Your task to perform on an android device: turn off notifications in google photos Image 0: 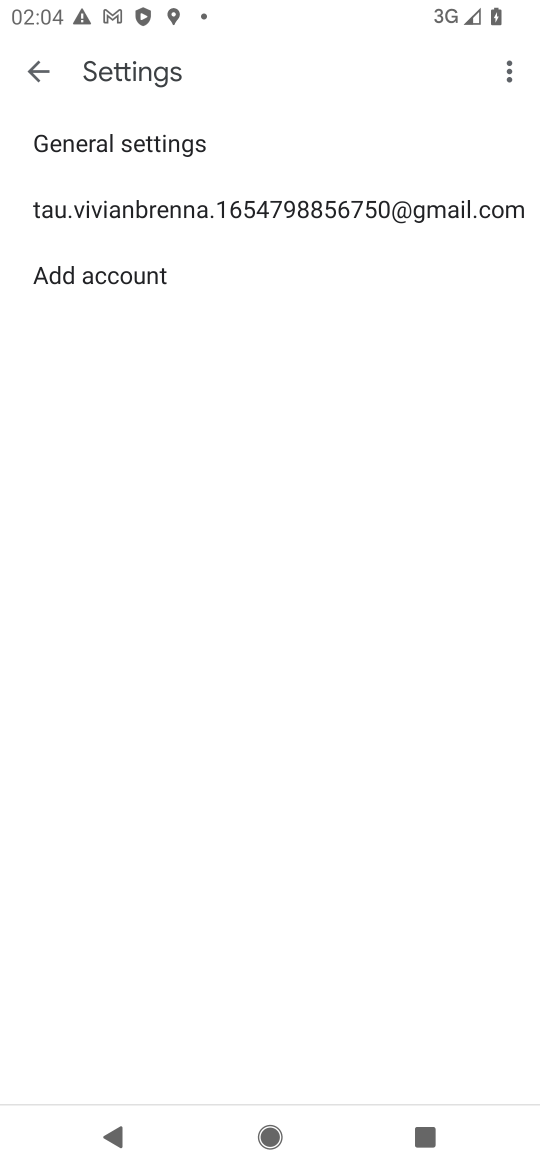
Step 0: press home button
Your task to perform on an android device: turn off notifications in google photos Image 1: 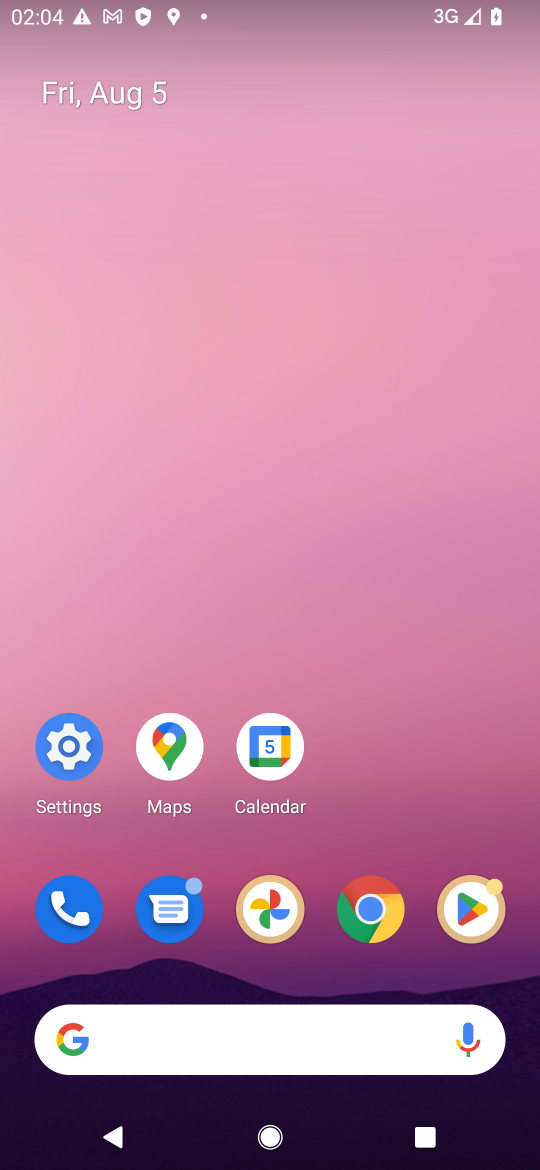
Step 1: click (263, 908)
Your task to perform on an android device: turn off notifications in google photos Image 2: 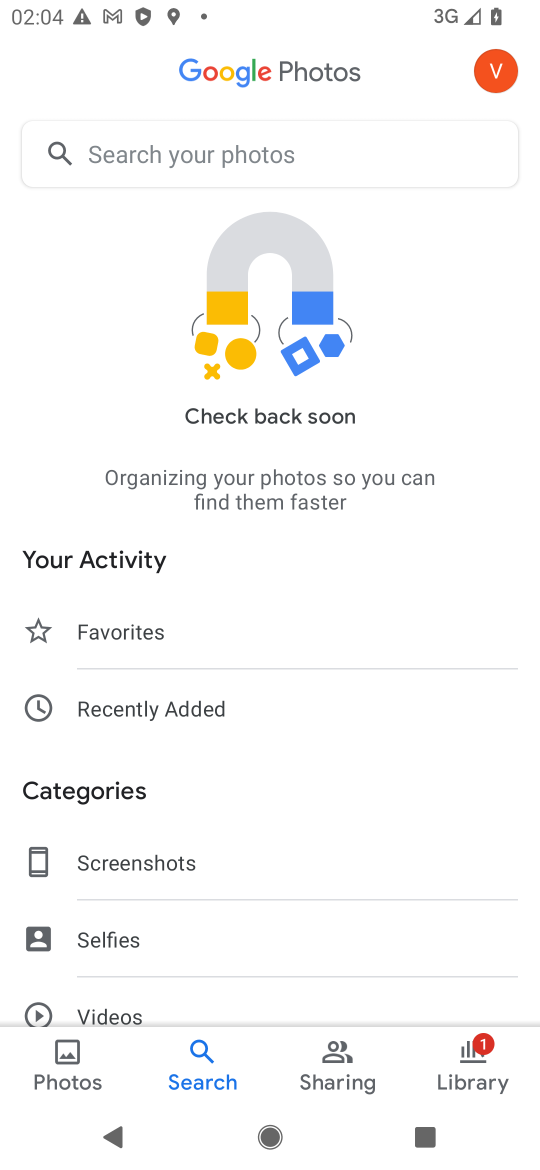
Step 2: drag from (246, 930) to (246, 564)
Your task to perform on an android device: turn off notifications in google photos Image 3: 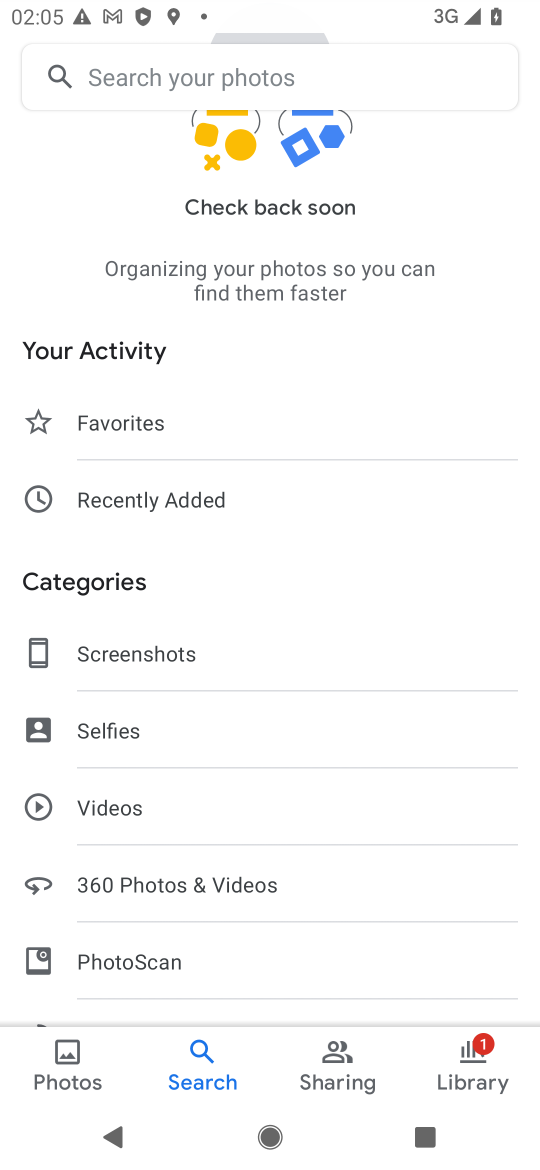
Step 3: drag from (335, 781) to (318, 338)
Your task to perform on an android device: turn off notifications in google photos Image 4: 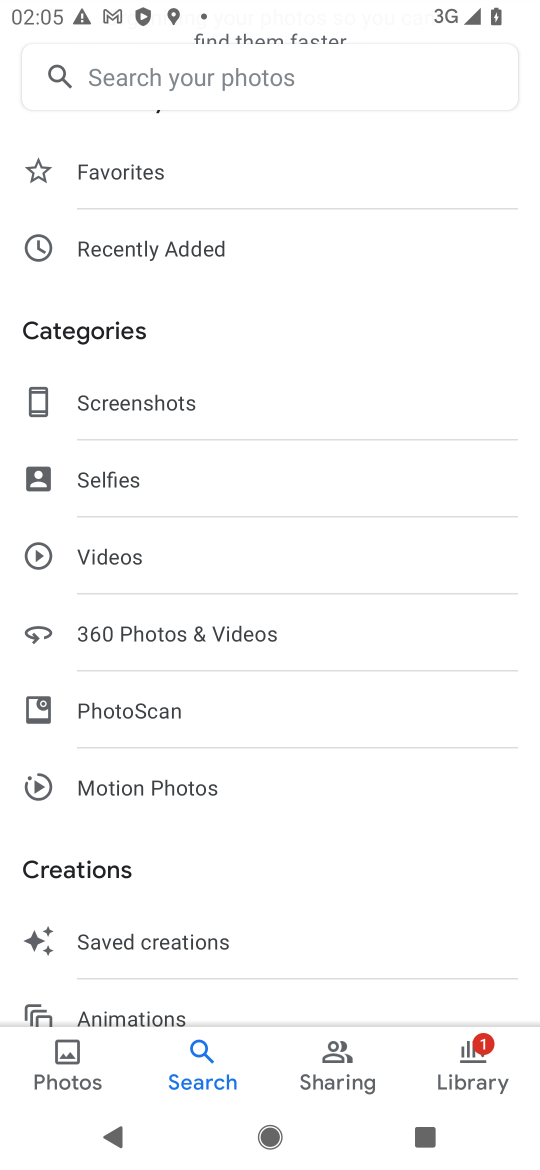
Step 4: click (478, 1051)
Your task to perform on an android device: turn off notifications in google photos Image 5: 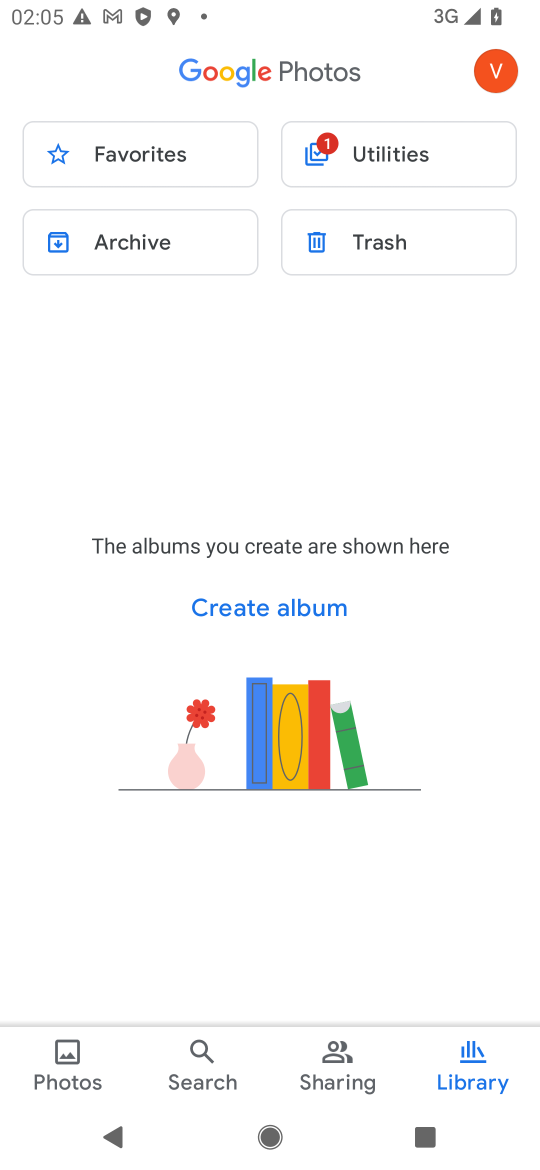
Step 5: click (491, 76)
Your task to perform on an android device: turn off notifications in google photos Image 6: 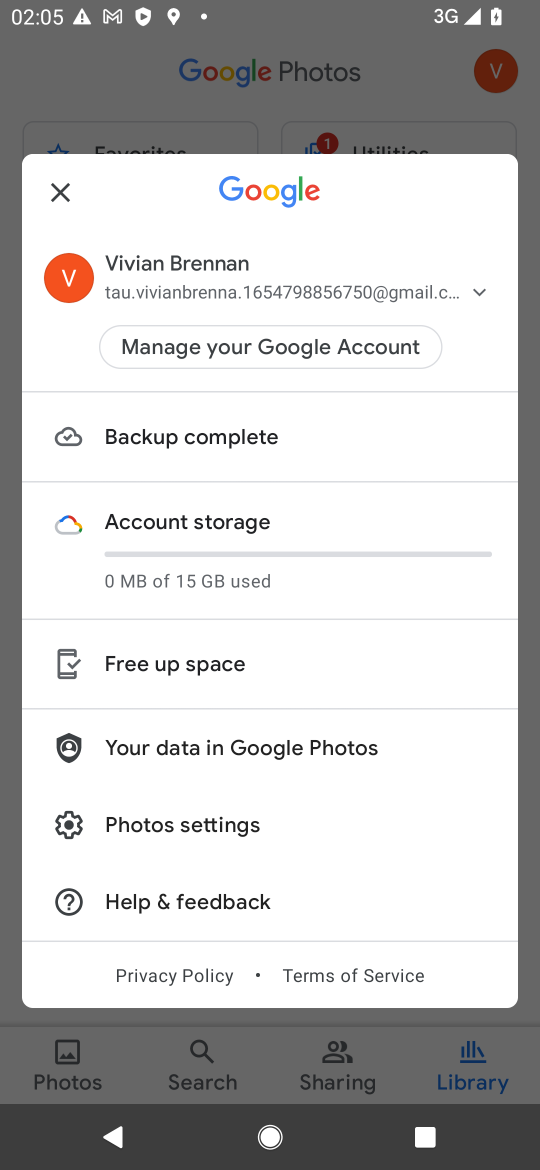
Step 6: click (201, 817)
Your task to perform on an android device: turn off notifications in google photos Image 7: 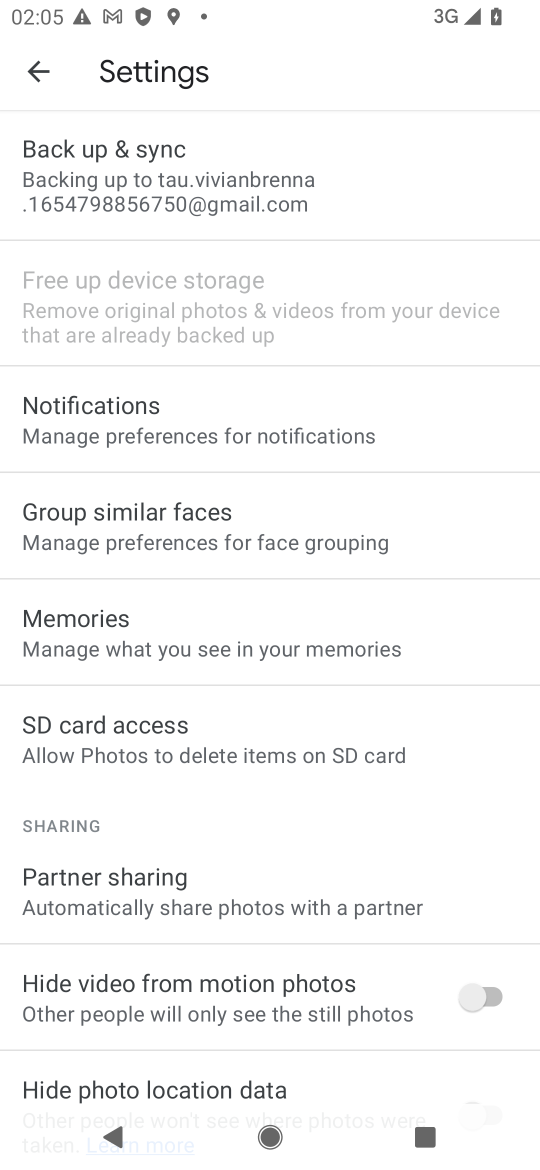
Step 7: click (95, 387)
Your task to perform on an android device: turn off notifications in google photos Image 8: 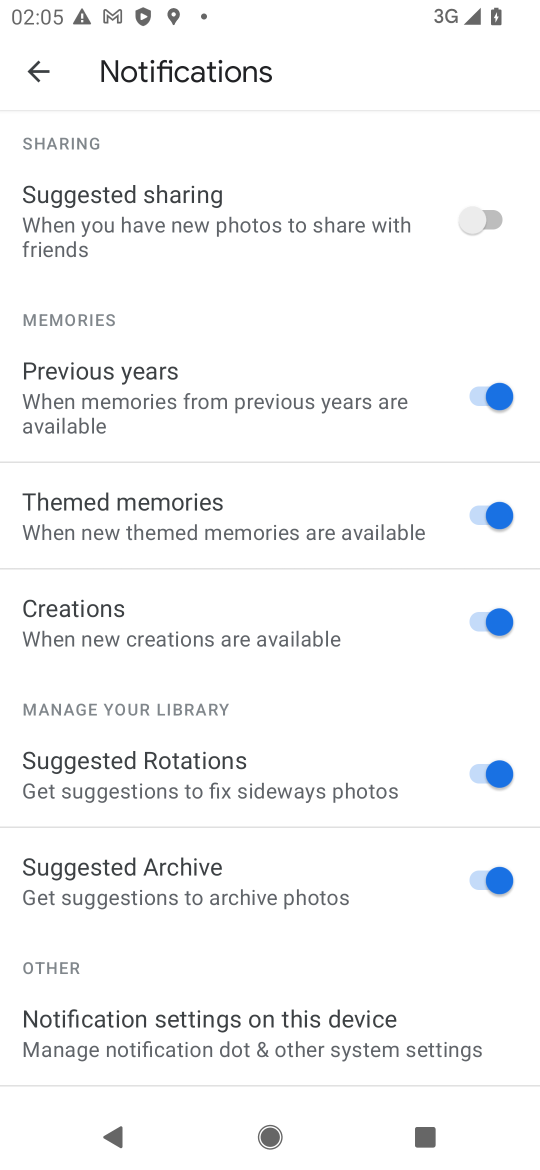
Step 8: click (242, 1016)
Your task to perform on an android device: turn off notifications in google photos Image 9: 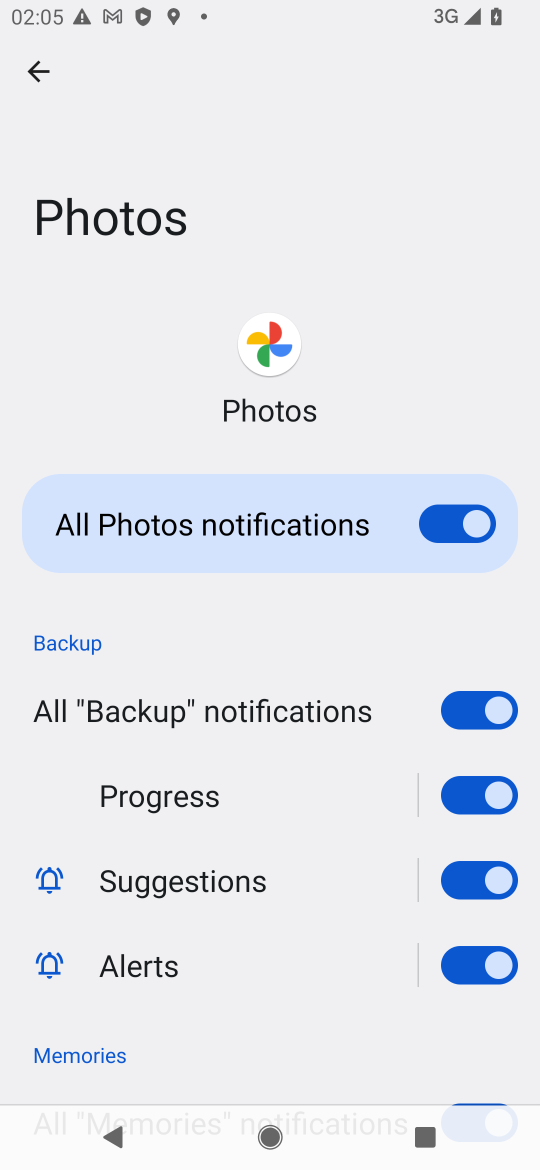
Step 9: click (468, 525)
Your task to perform on an android device: turn off notifications in google photos Image 10: 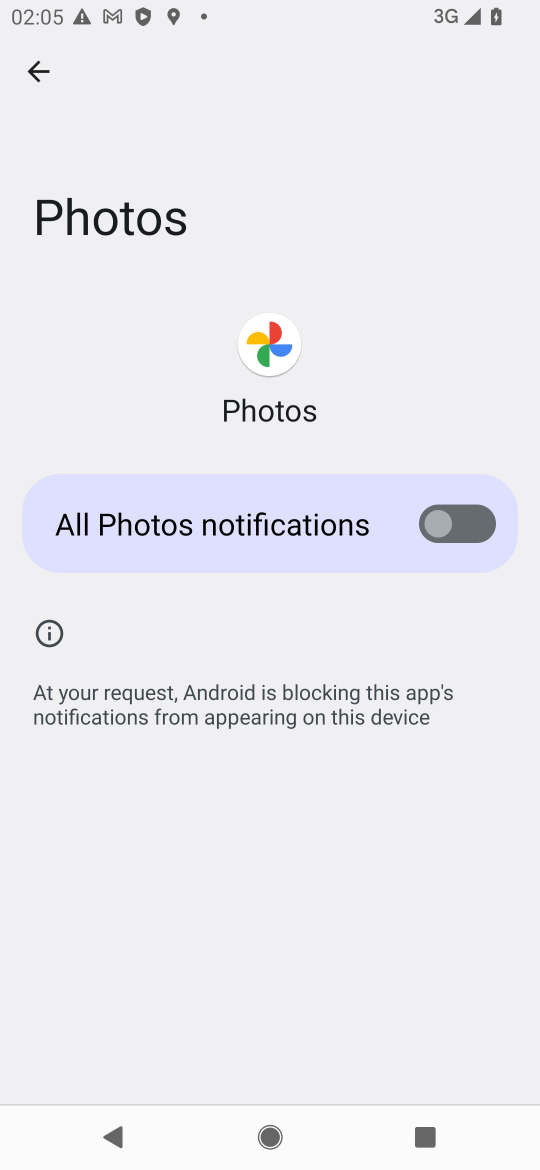
Step 10: task complete